Your task to perform on an android device: toggle data saver in the chrome app Image 0: 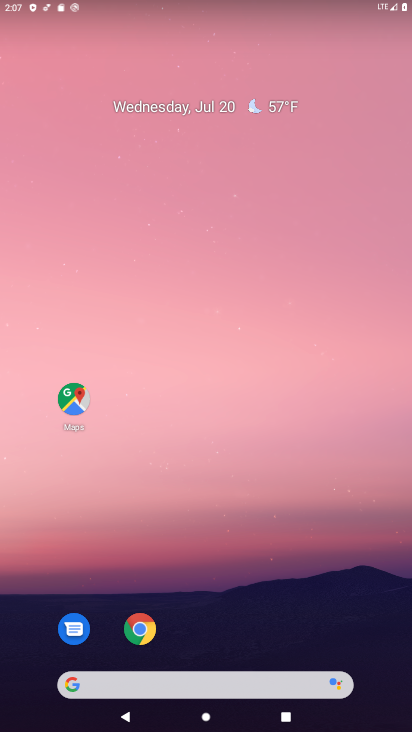
Step 0: click (141, 632)
Your task to perform on an android device: toggle data saver in the chrome app Image 1: 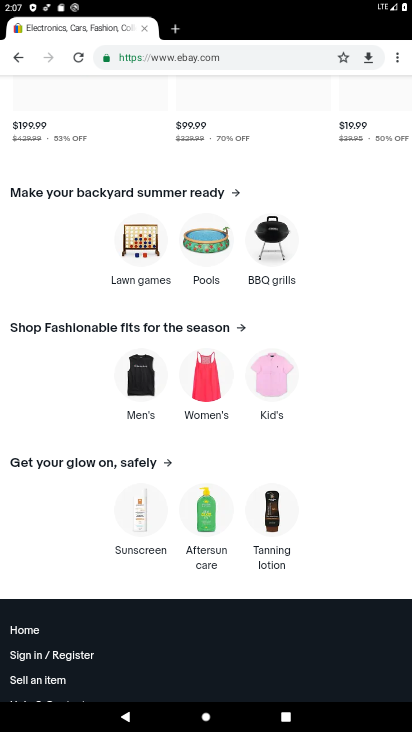
Step 1: click (396, 62)
Your task to perform on an android device: toggle data saver in the chrome app Image 2: 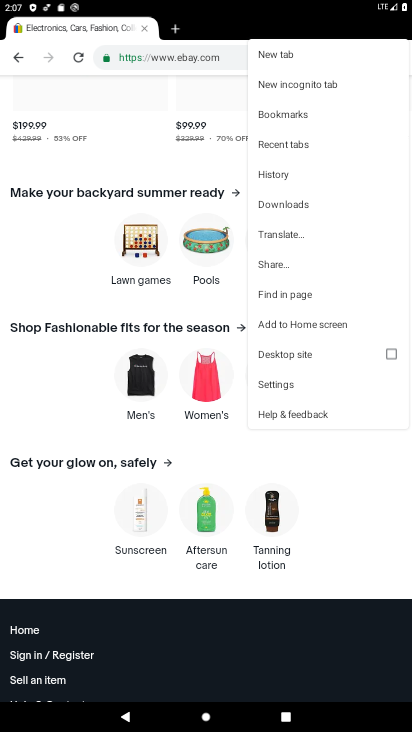
Step 2: click (274, 386)
Your task to perform on an android device: toggle data saver in the chrome app Image 3: 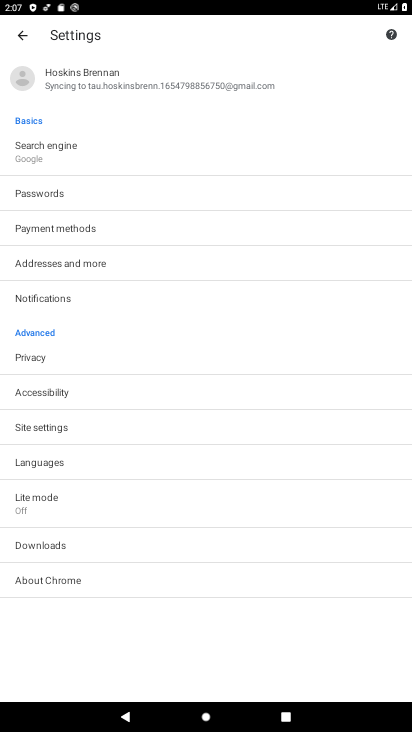
Step 3: click (38, 495)
Your task to perform on an android device: toggle data saver in the chrome app Image 4: 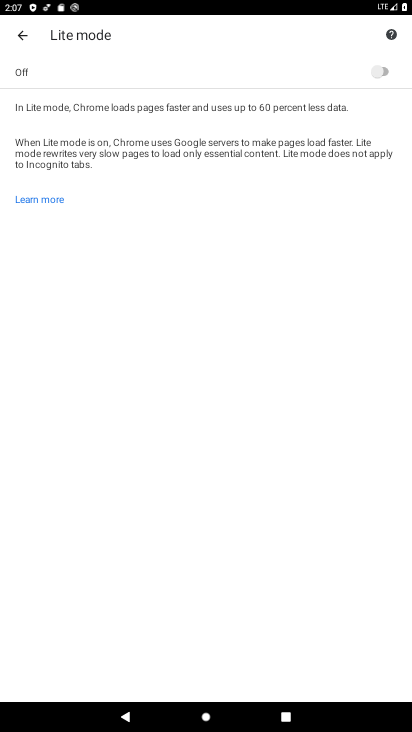
Step 4: click (383, 72)
Your task to perform on an android device: toggle data saver in the chrome app Image 5: 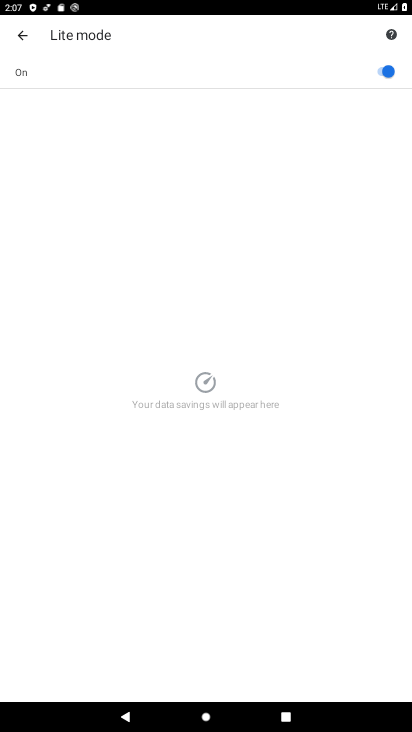
Step 5: task complete